Your task to perform on an android device: Open Youtube and go to the subscriptions tab Image 0: 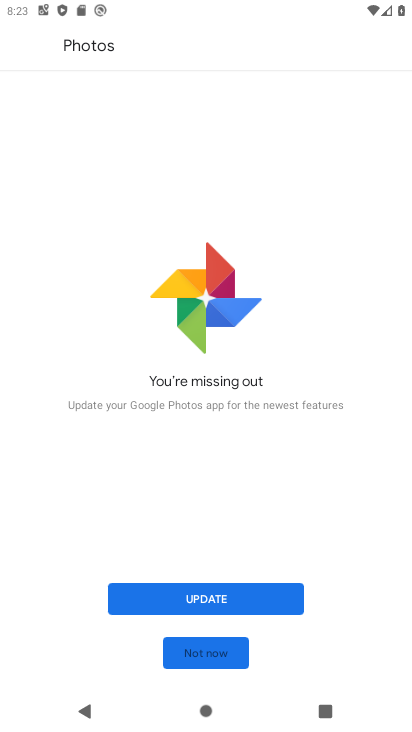
Step 0: press home button
Your task to perform on an android device: Open Youtube and go to the subscriptions tab Image 1: 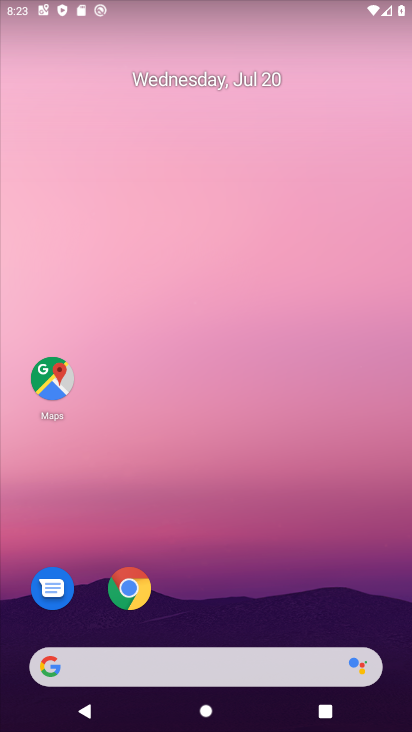
Step 1: drag from (215, 634) to (208, 156)
Your task to perform on an android device: Open Youtube and go to the subscriptions tab Image 2: 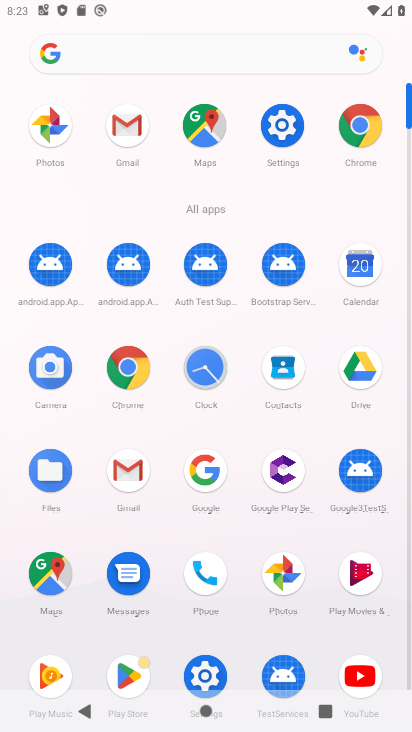
Step 2: click (356, 665)
Your task to perform on an android device: Open Youtube and go to the subscriptions tab Image 3: 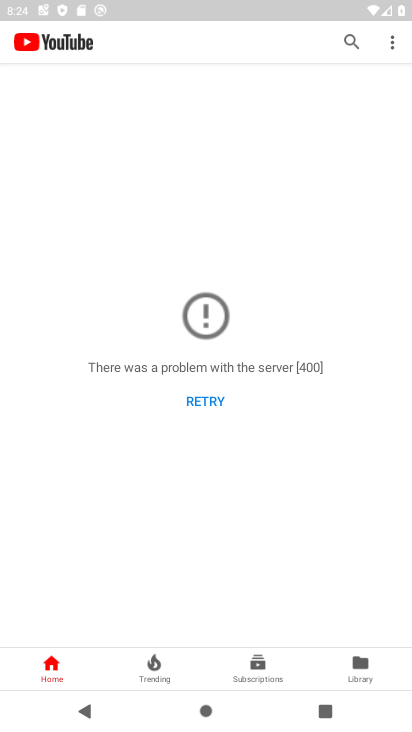
Step 3: click (266, 669)
Your task to perform on an android device: Open Youtube and go to the subscriptions tab Image 4: 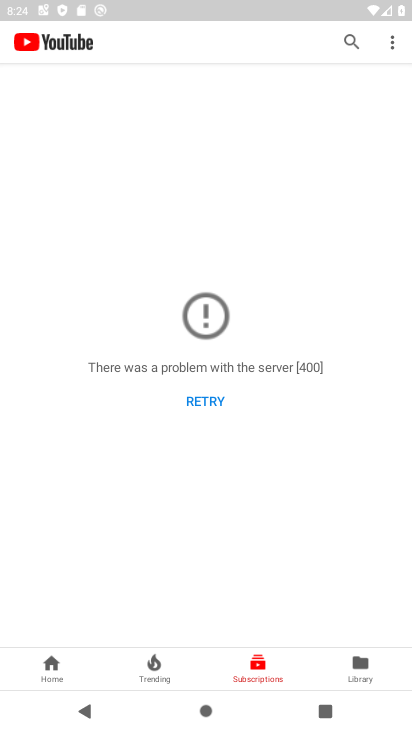
Step 4: task complete